Your task to perform on an android device: turn on sleep mode Image 0: 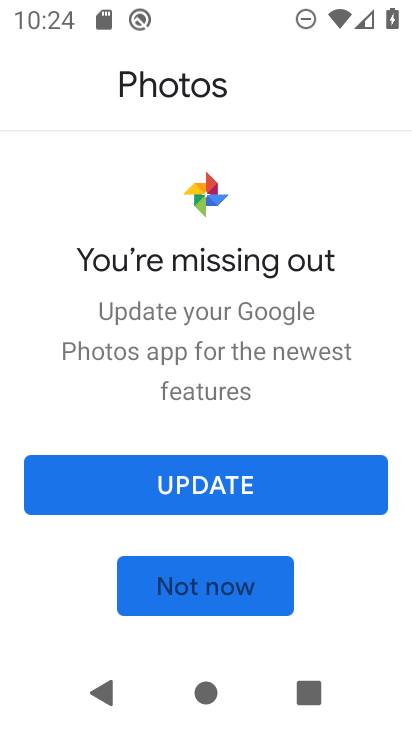
Step 0: press home button
Your task to perform on an android device: turn on sleep mode Image 1: 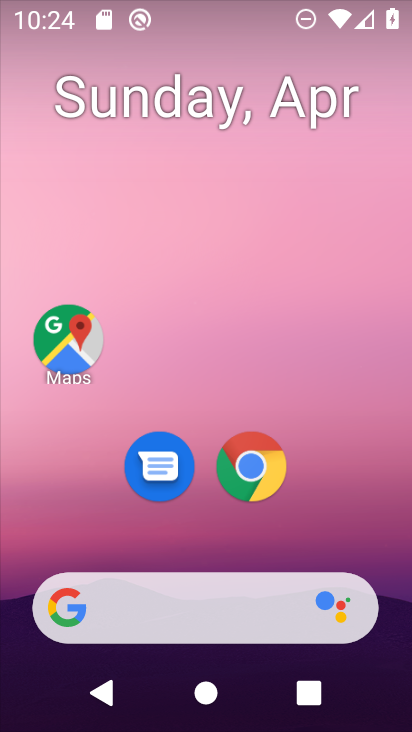
Step 1: press home button
Your task to perform on an android device: turn on sleep mode Image 2: 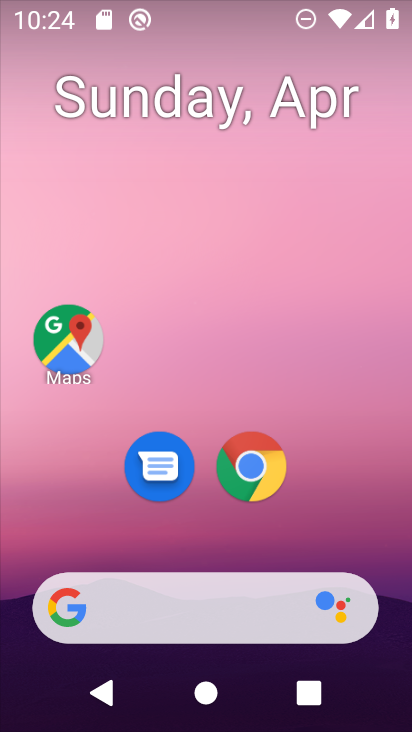
Step 2: drag from (346, 535) to (346, 82)
Your task to perform on an android device: turn on sleep mode Image 3: 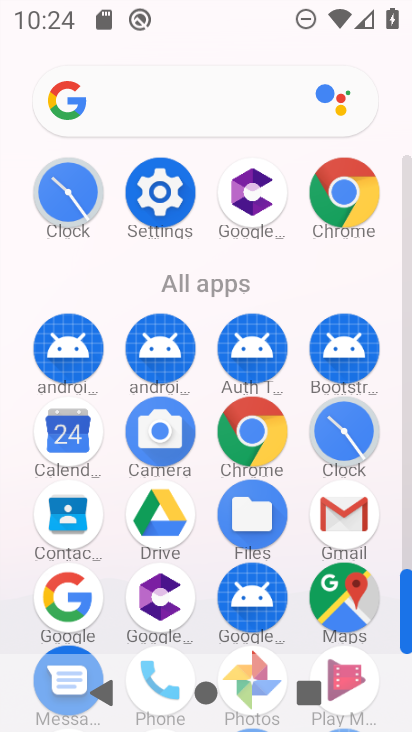
Step 3: click (179, 185)
Your task to perform on an android device: turn on sleep mode Image 4: 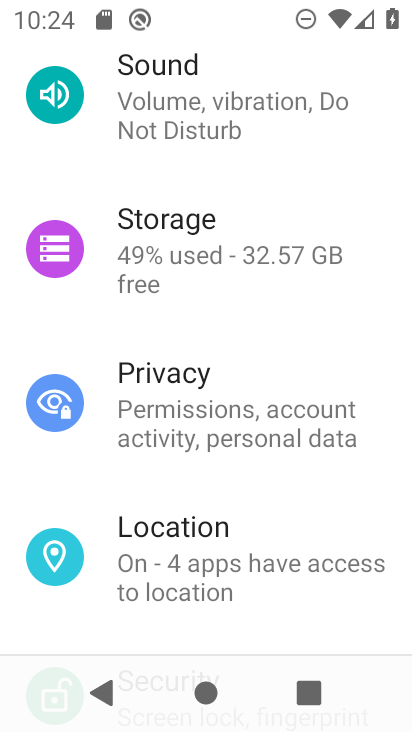
Step 4: drag from (378, 342) to (385, 463)
Your task to perform on an android device: turn on sleep mode Image 5: 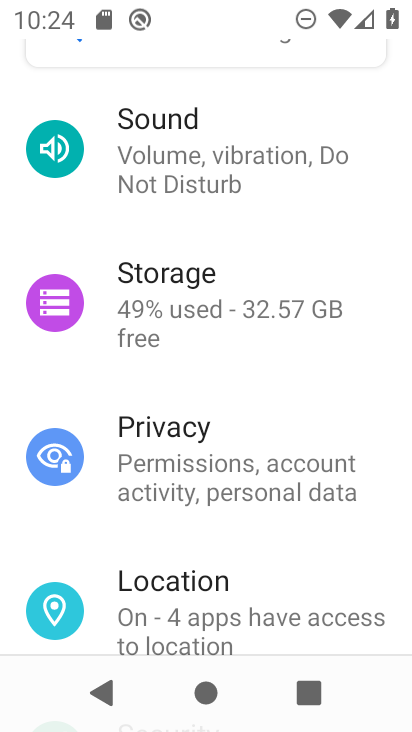
Step 5: drag from (369, 255) to (374, 422)
Your task to perform on an android device: turn on sleep mode Image 6: 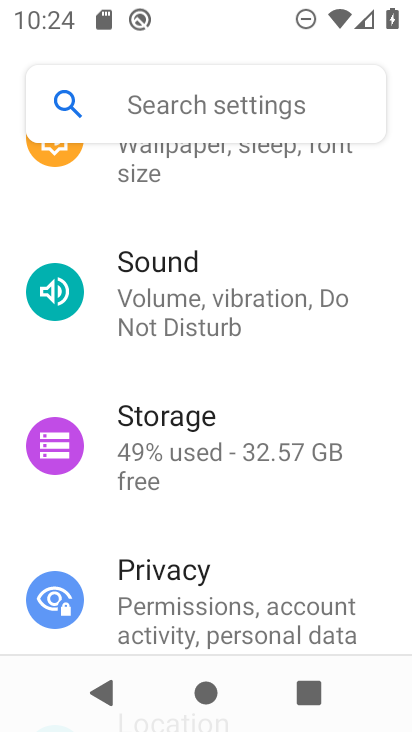
Step 6: drag from (370, 216) to (373, 414)
Your task to perform on an android device: turn on sleep mode Image 7: 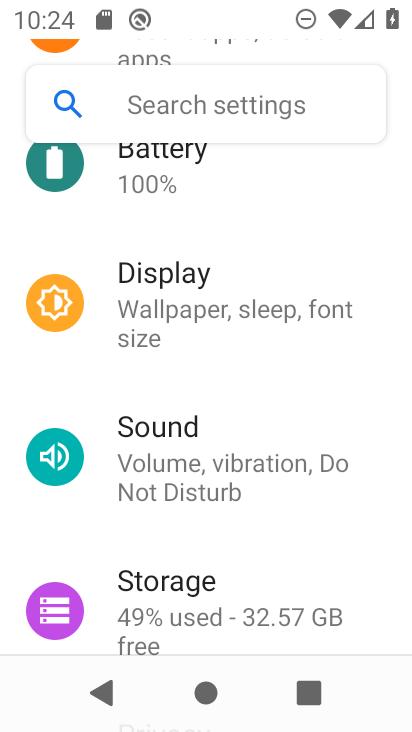
Step 7: click (305, 304)
Your task to perform on an android device: turn on sleep mode Image 8: 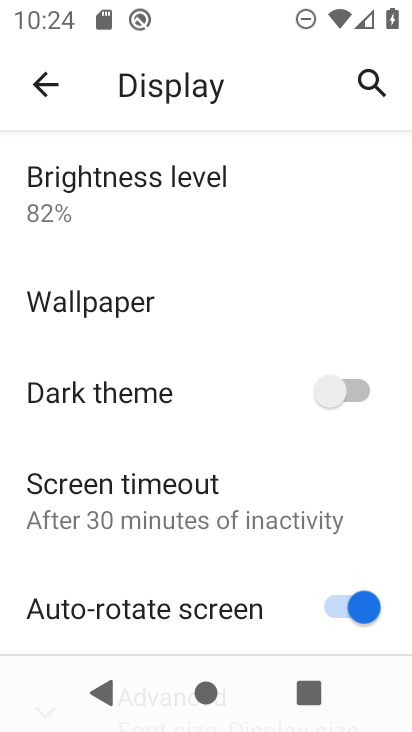
Step 8: drag from (260, 385) to (259, 244)
Your task to perform on an android device: turn on sleep mode Image 9: 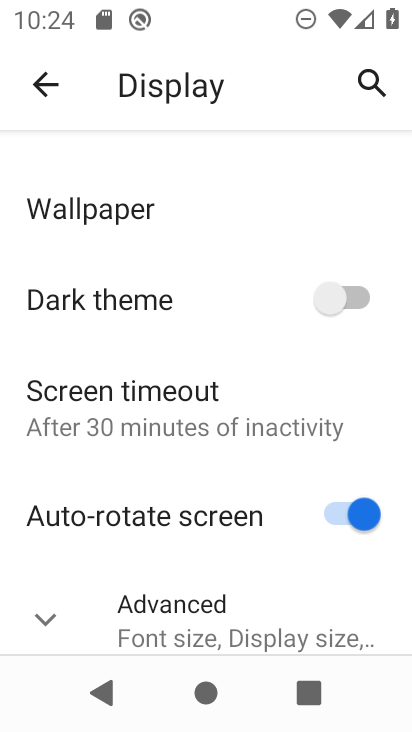
Step 9: click (224, 612)
Your task to perform on an android device: turn on sleep mode Image 10: 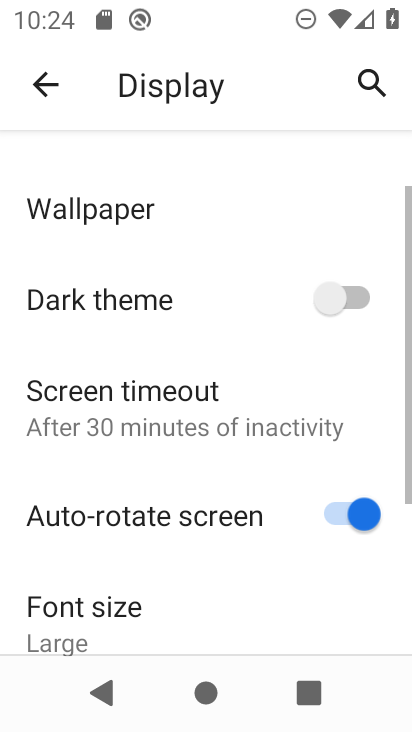
Step 10: task complete